Your task to perform on an android device: turn on translation in the chrome app Image 0: 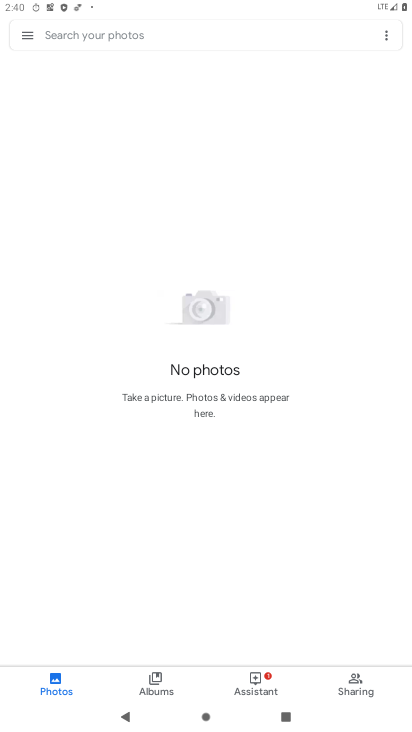
Step 0: drag from (253, 536) to (218, 277)
Your task to perform on an android device: turn on translation in the chrome app Image 1: 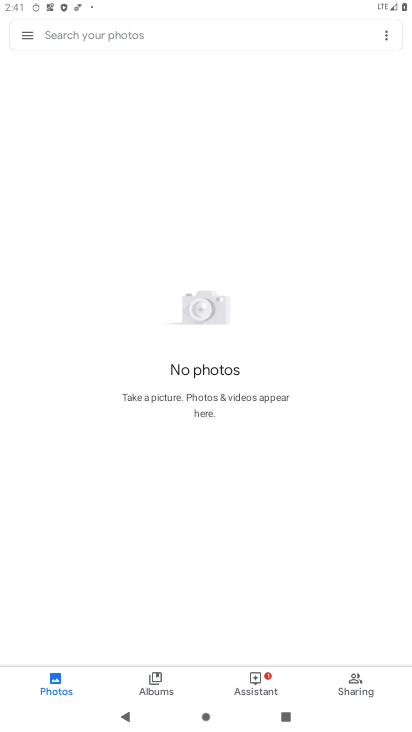
Step 1: press home button
Your task to perform on an android device: turn on translation in the chrome app Image 2: 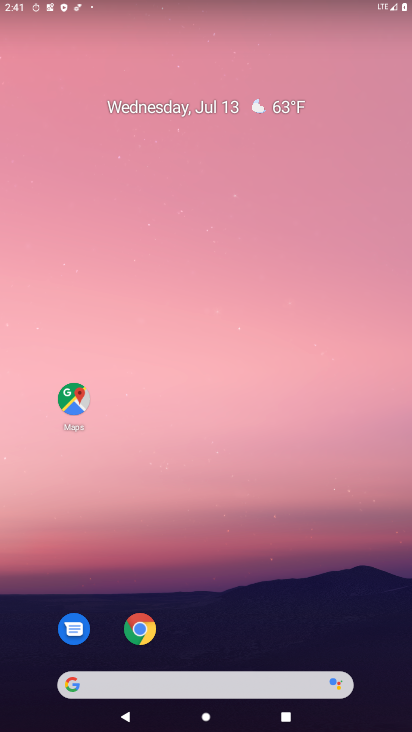
Step 2: drag from (194, 580) to (276, 128)
Your task to perform on an android device: turn on translation in the chrome app Image 3: 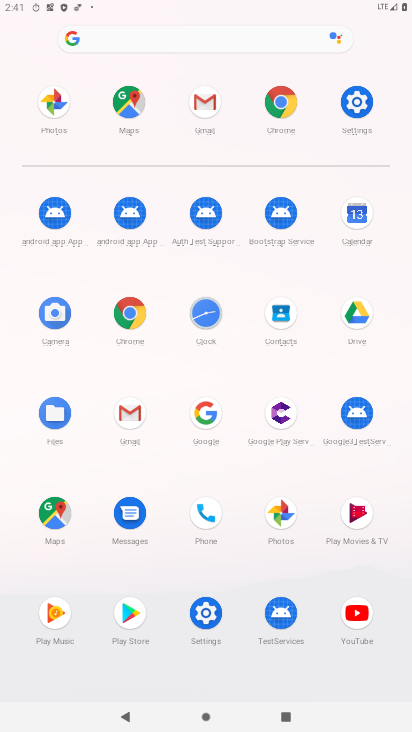
Step 3: click (119, 311)
Your task to perform on an android device: turn on translation in the chrome app Image 4: 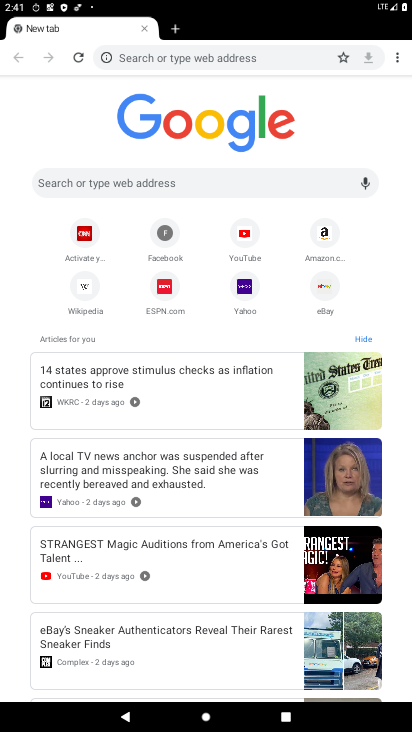
Step 4: click (400, 45)
Your task to perform on an android device: turn on translation in the chrome app Image 5: 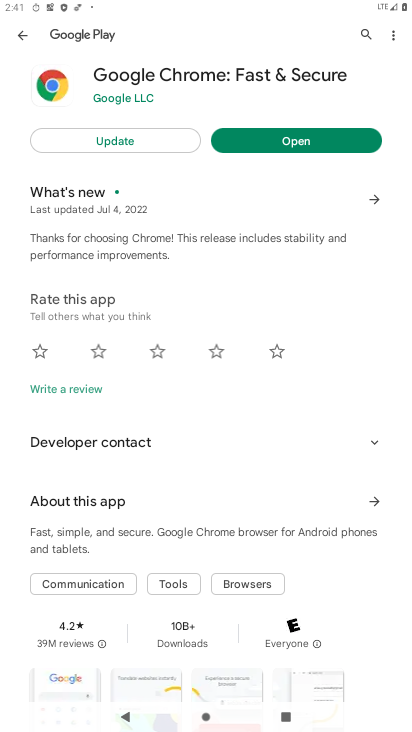
Step 5: drag from (193, 236) to (253, 535)
Your task to perform on an android device: turn on translation in the chrome app Image 6: 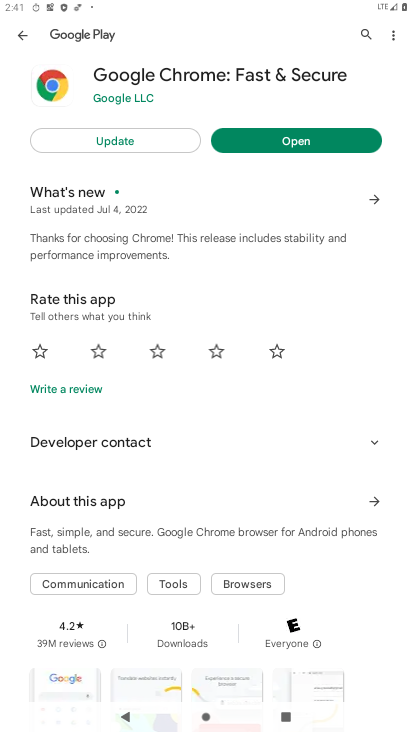
Step 6: press back button
Your task to perform on an android device: turn on translation in the chrome app Image 7: 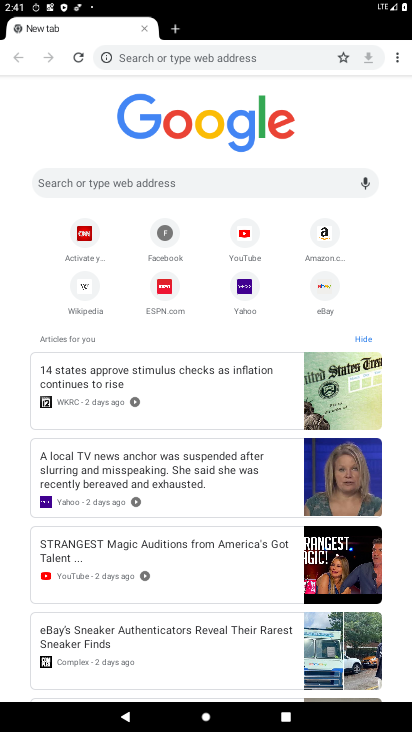
Step 7: click (399, 61)
Your task to perform on an android device: turn on translation in the chrome app Image 8: 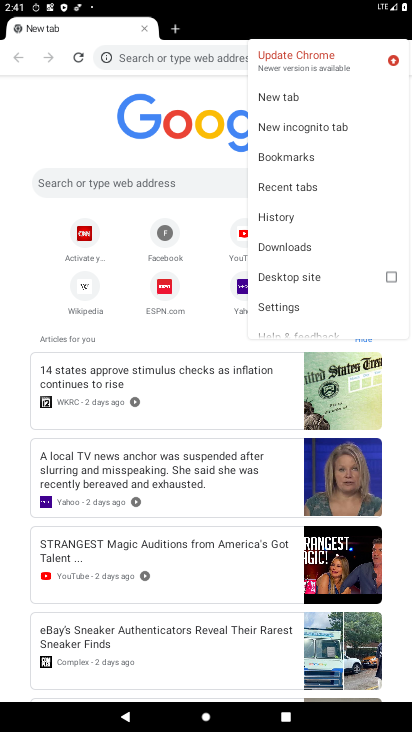
Step 8: click (270, 297)
Your task to perform on an android device: turn on translation in the chrome app Image 9: 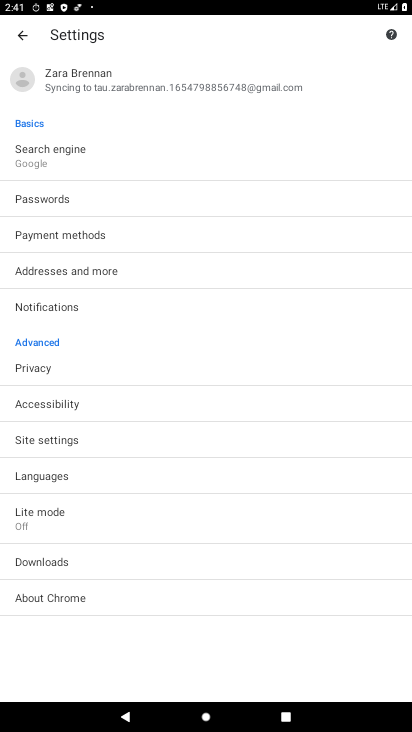
Step 9: click (50, 472)
Your task to perform on an android device: turn on translation in the chrome app Image 10: 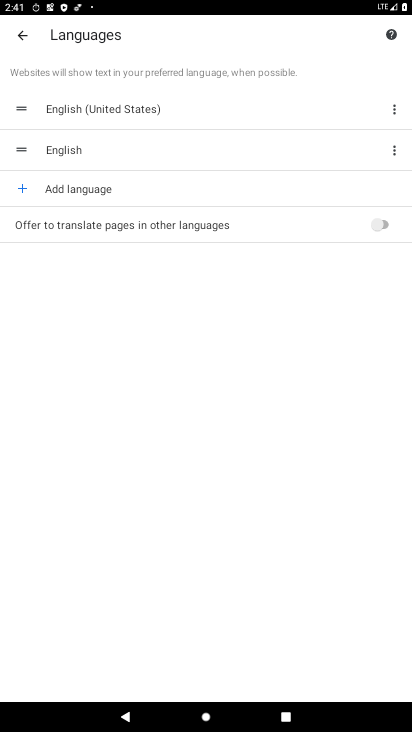
Step 10: click (225, 227)
Your task to perform on an android device: turn on translation in the chrome app Image 11: 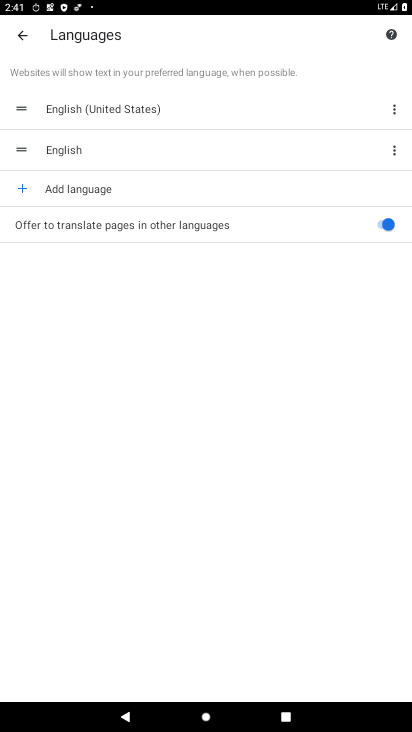
Step 11: task complete